Your task to perform on an android device: Open ESPN.com Image 0: 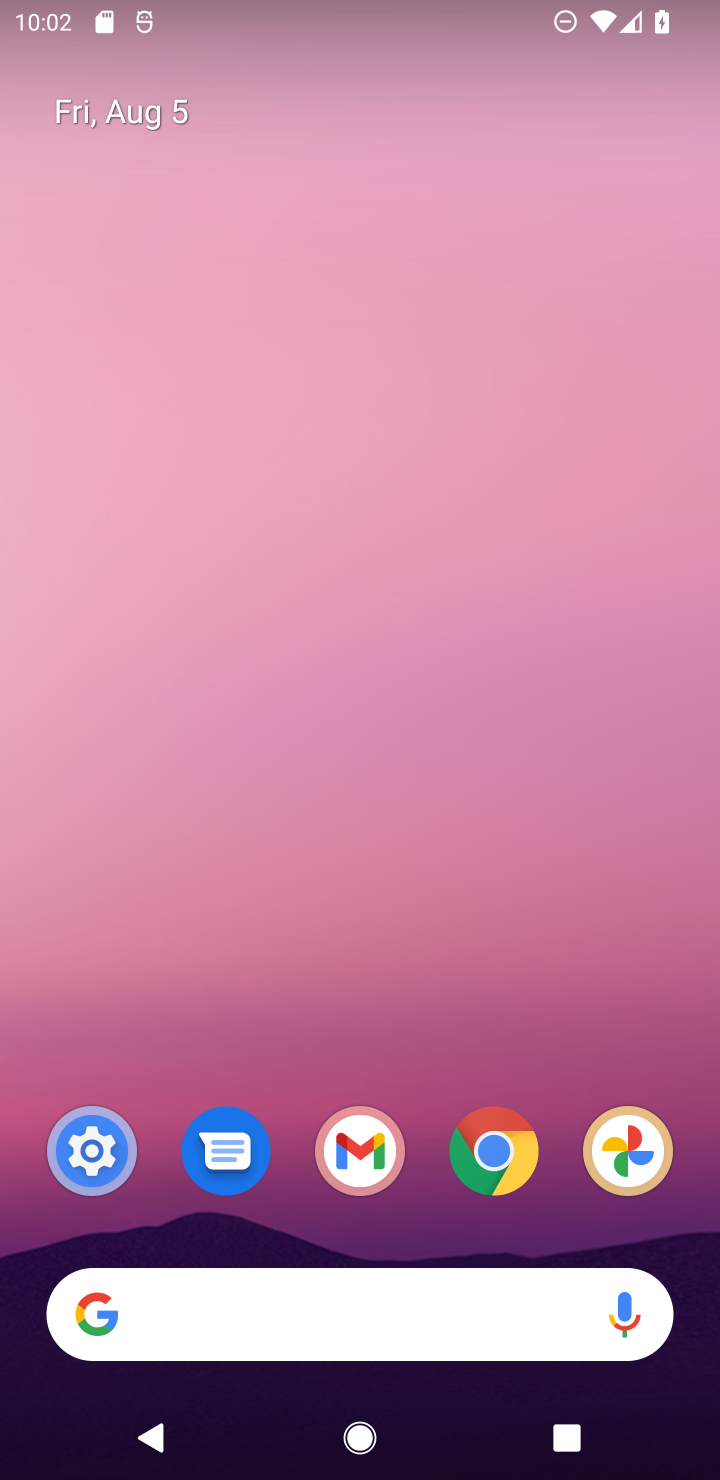
Step 0: click (503, 1181)
Your task to perform on an android device: Open ESPN.com Image 1: 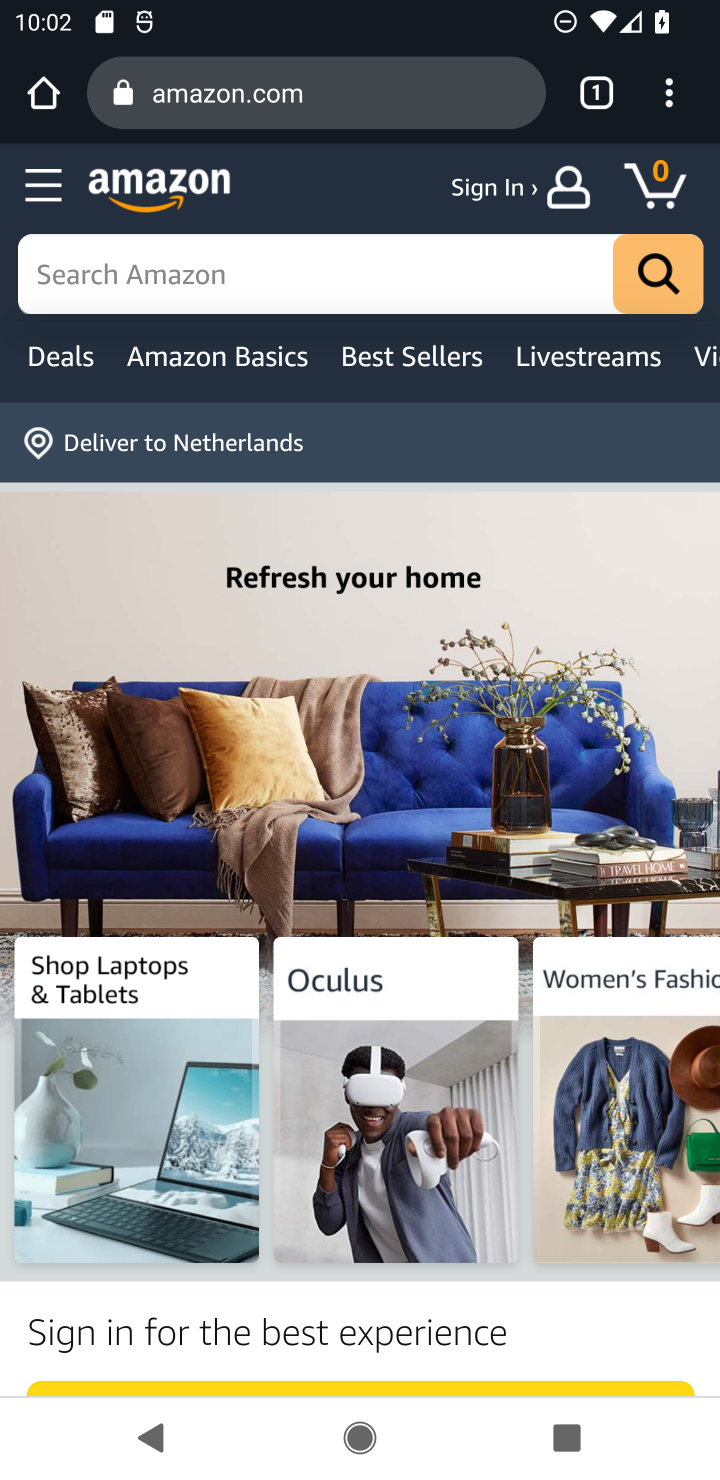
Step 1: click (263, 104)
Your task to perform on an android device: Open ESPN.com Image 2: 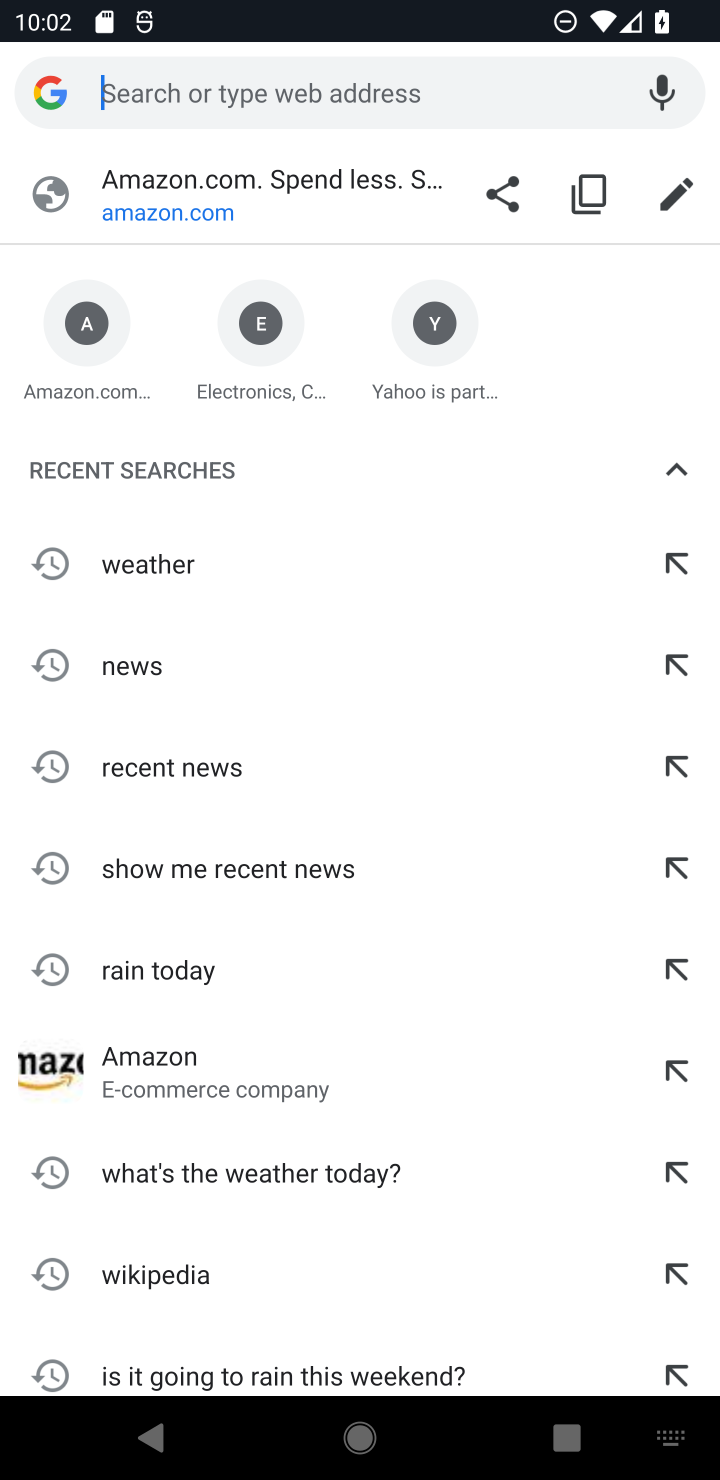
Step 2: type "www.espn.com"
Your task to perform on an android device: Open ESPN.com Image 3: 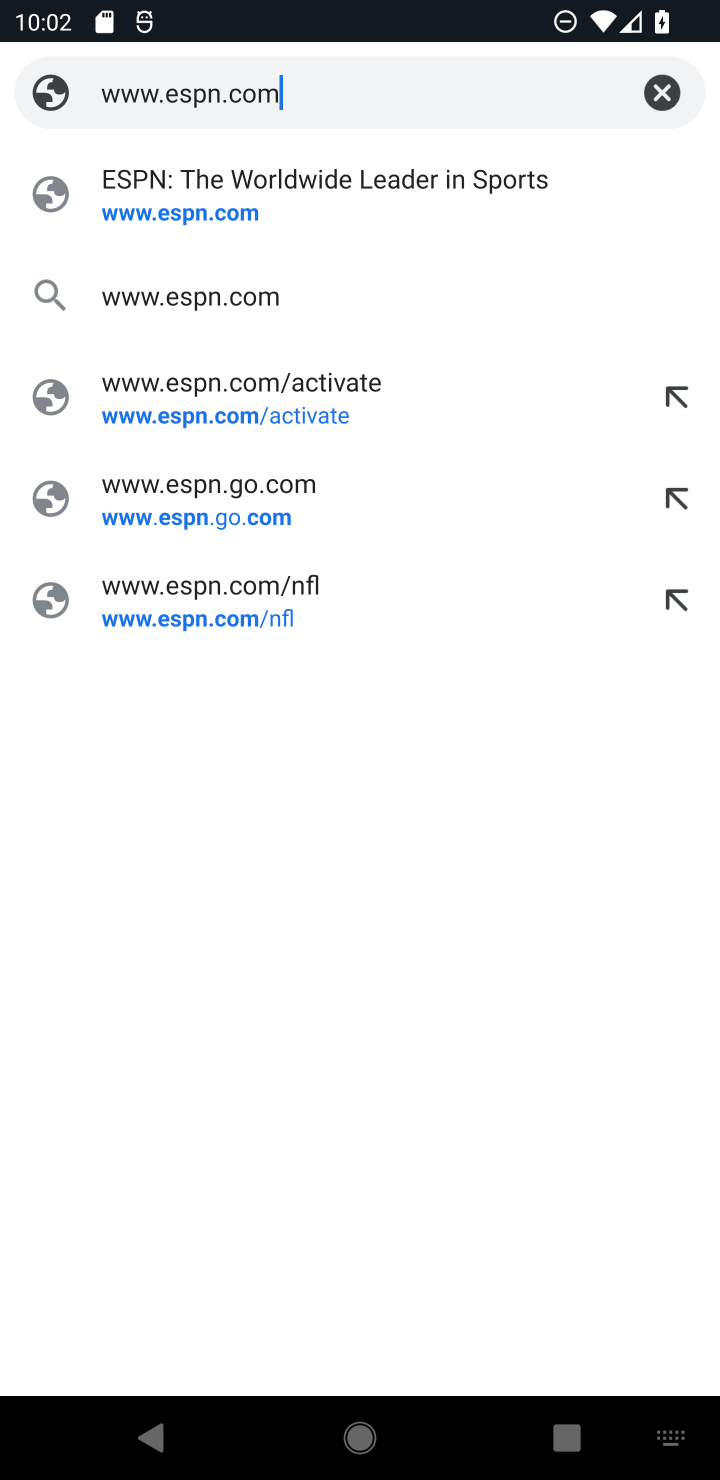
Step 3: click (289, 196)
Your task to perform on an android device: Open ESPN.com Image 4: 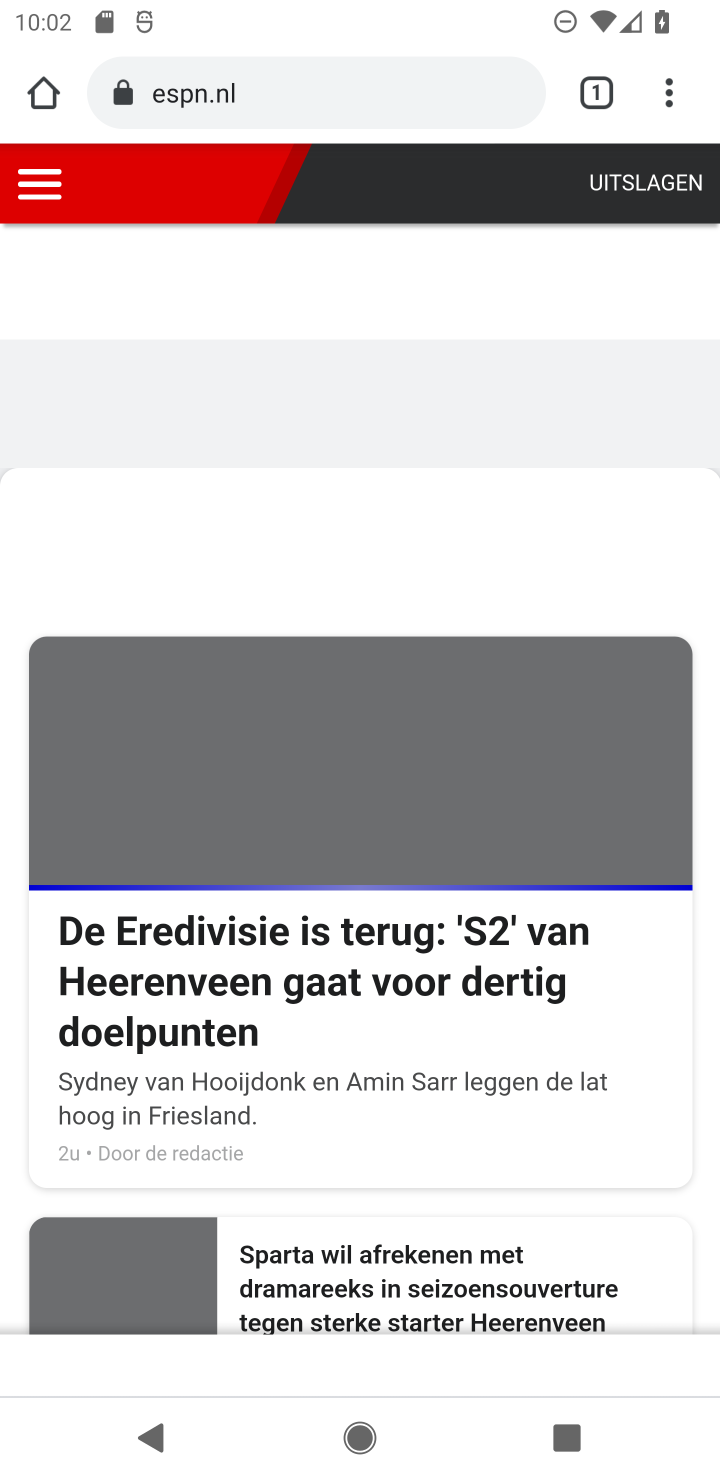
Step 4: task complete